Your task to perform on an android device: Show me popular videos on Youtube Image 0: 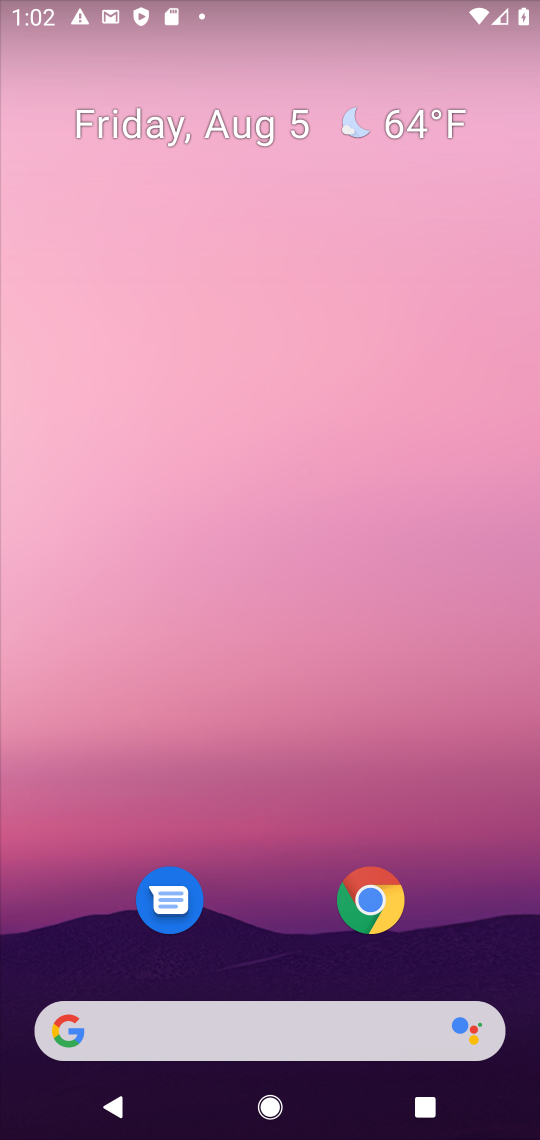
Step 0: drag from (287, 946) to (266, 109)
Your task to perform on an android device: Show me popular videos on Youtube Image 1: 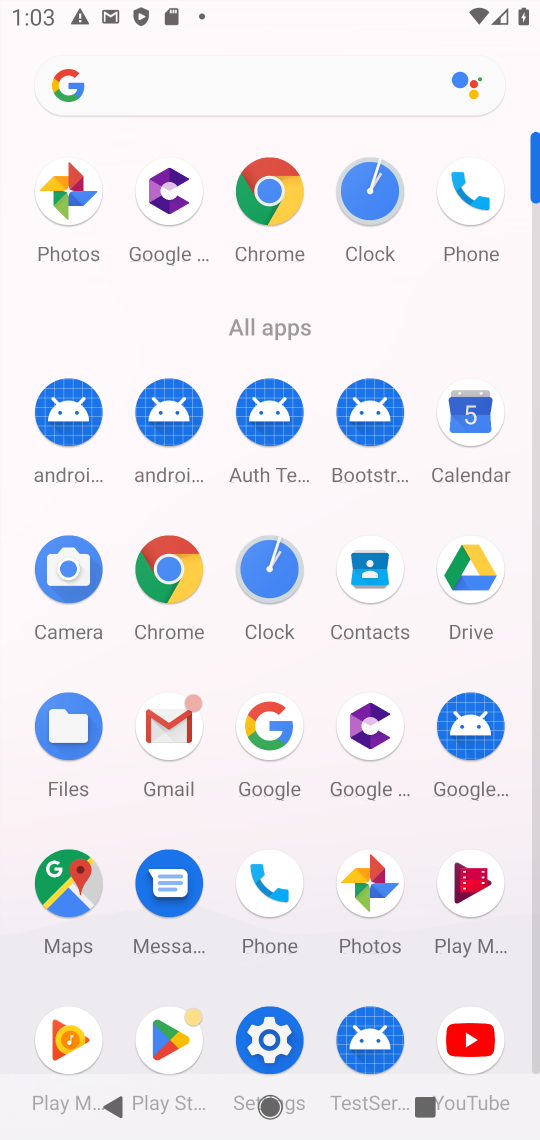
Step 1: click (462, 1026)
Your task to perform on an android device: Show me popular videos on Youtube Image 2: 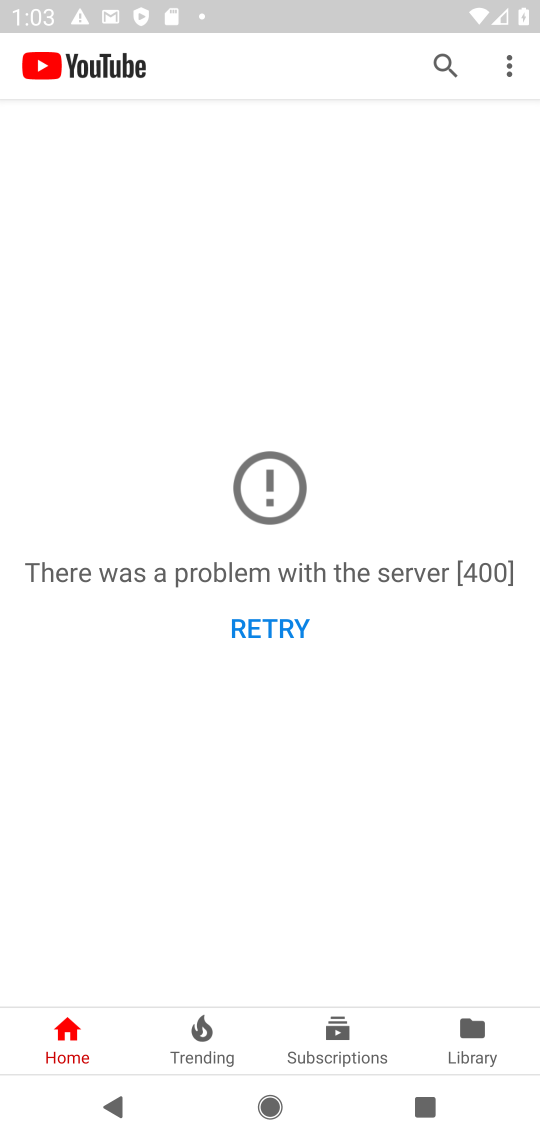
Step 2: click (464, 1031)
Your task to perform on an android device: Show me popular videos on Youtube Image 3: 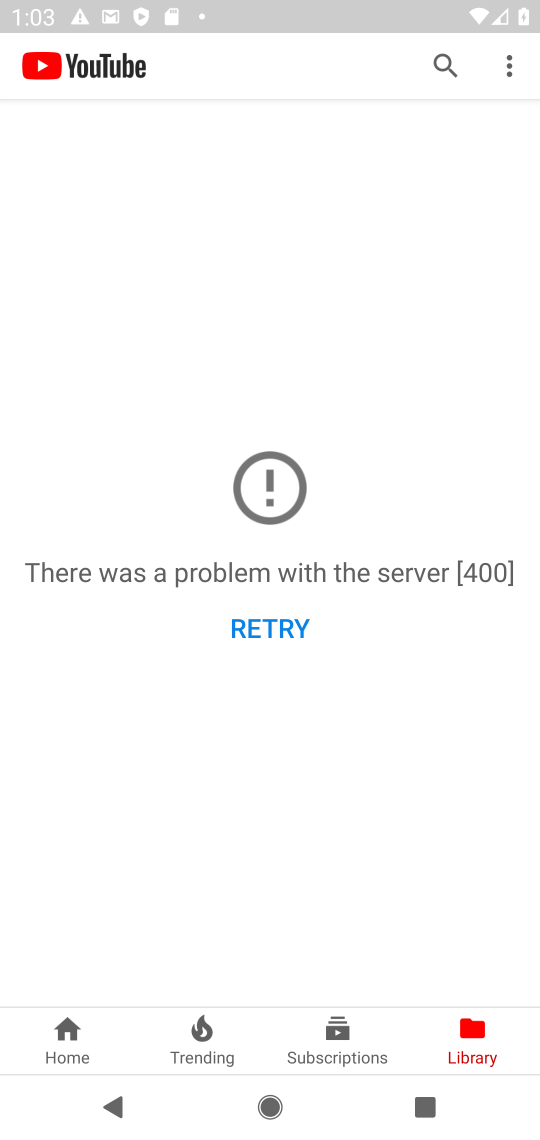
Step 3: click (194, 1029)
Your task to perform on an android device: Show me popular videos on Youtube Image 4: 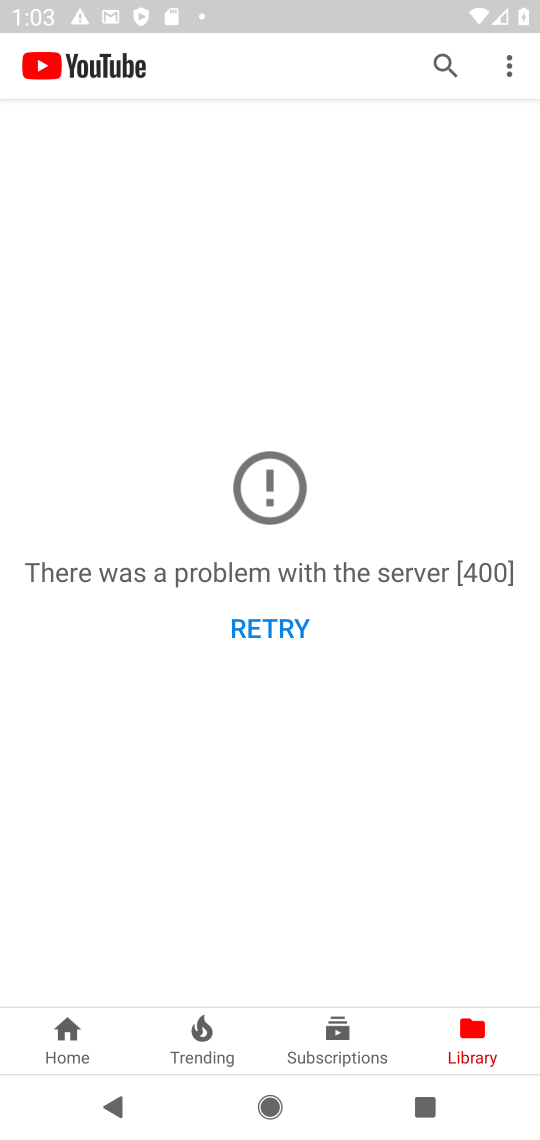
Step 4: task complete